Your task to perform on an android device: turn on showing notifications on the lock screen Image 0: 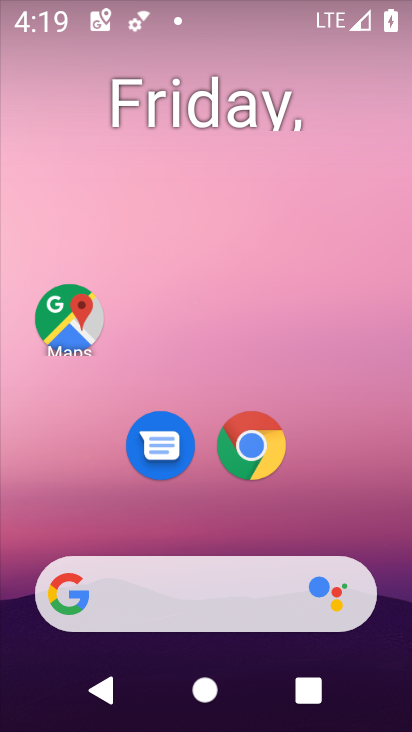
Step 0: drag from (398, 572) to (308, 177)
Your task to perform on an android device: turn on showing notifications on the lock screen Image 1: 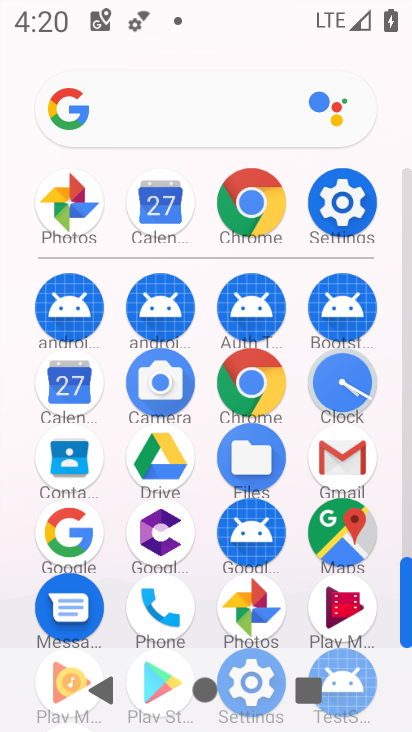
Step 1: click (351, 193)
Your task to perform on an android device: turn on showing notifications on the lock screen Image 2: 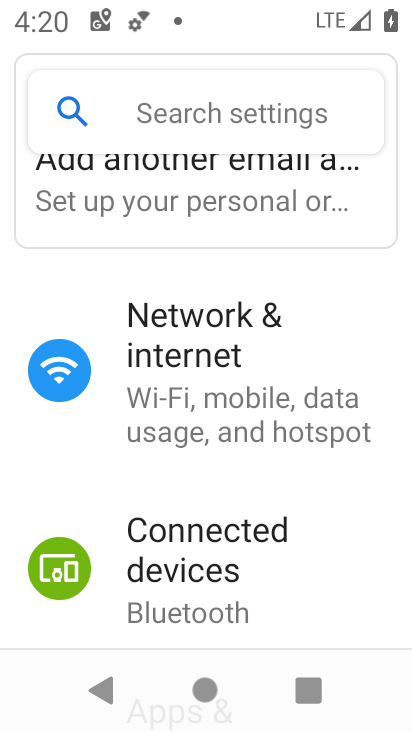
Step 2: drag from (282, 576) to (163, 209)
Your task to perform on an android device: turn on showing notifications on the lock screen Image 3: 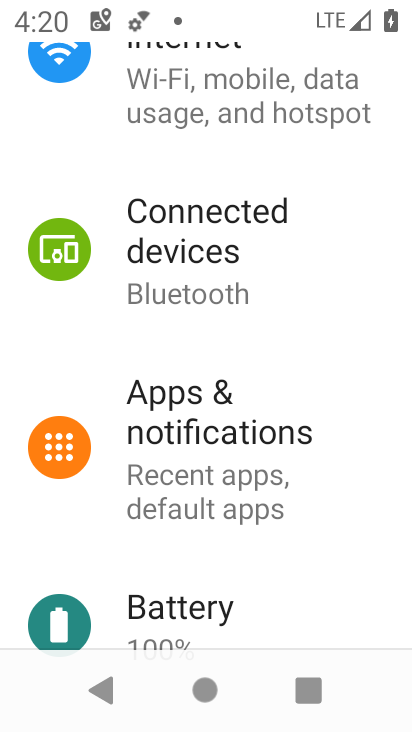
Step 3: click (218, 470)
Your task to perform on an android device: turn on showing notifications on the lock screen Image 4: 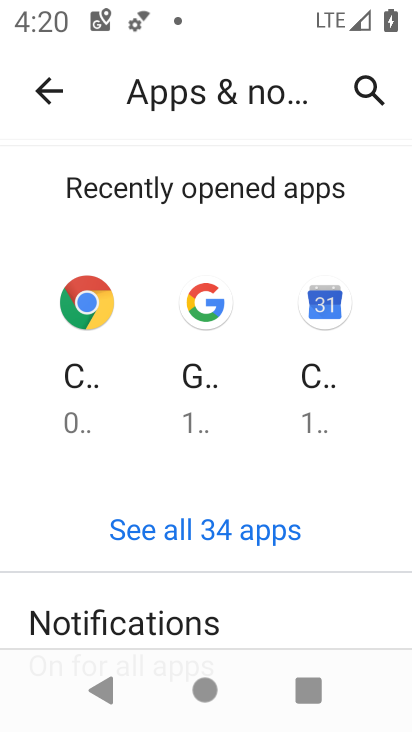
Step 4: drag from (270, 622) to (205, 238)
Your task to perform on an android device: turn on showing notifications on the lock screen Image 5: 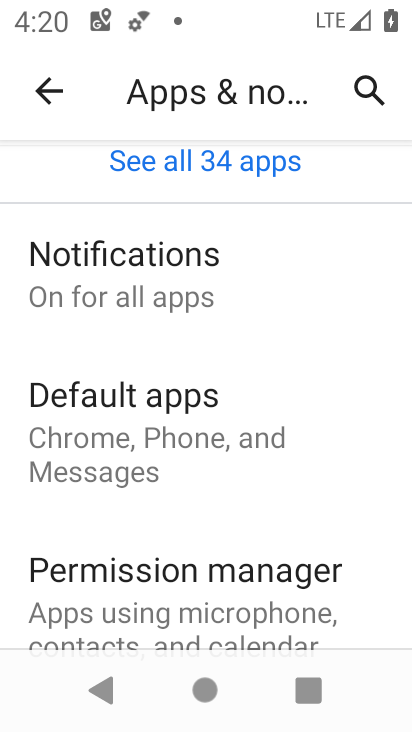
Step 5: click (206, 280)
Your task to perform on an android device: turn on showing notifications on the lock screen Image 6: 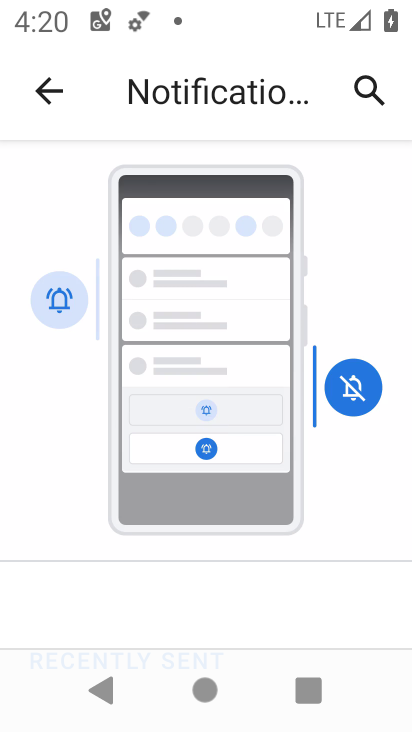
Step 6: drag from (254, 603) to (232, 43)
Your task to perform on an android device: turn on showing notifications on the lock screen Image 7: 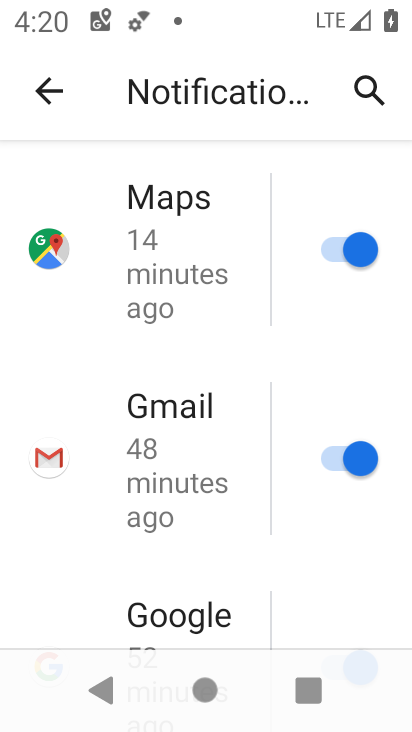
Step 7: drag from (258, 590) to (222, 60)
Your task to perform on an android device: turn on showing notifications on the lock screen Image 8: 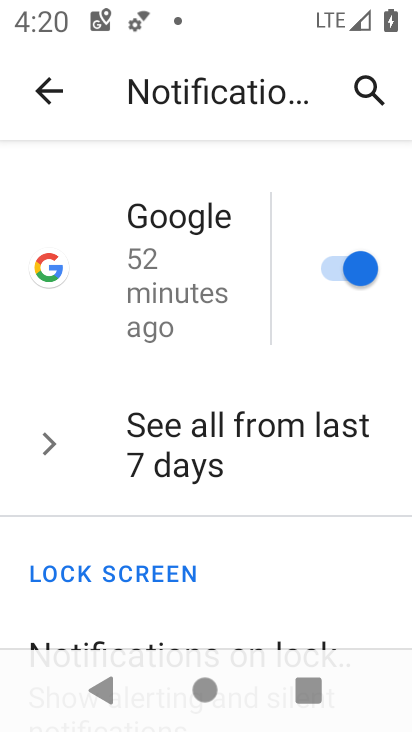
Step 8: drag from (230, 549) to (217, 186)
Your task to perform on an android device: turn on showing notifications on the lock screen Image 9: 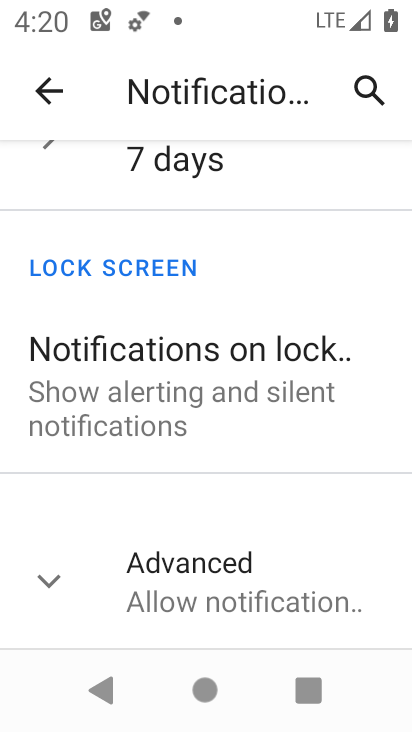
Step 9: click (243, 365)
Your task to perform on an android device: turn on showing notifications on the lock screen Image 10: 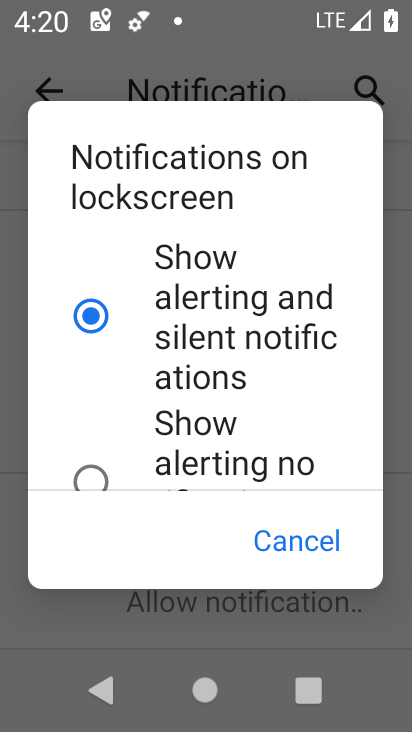
Step 10: task complete